Your task to perform on an android device: open sync settings in chrome Image 0: 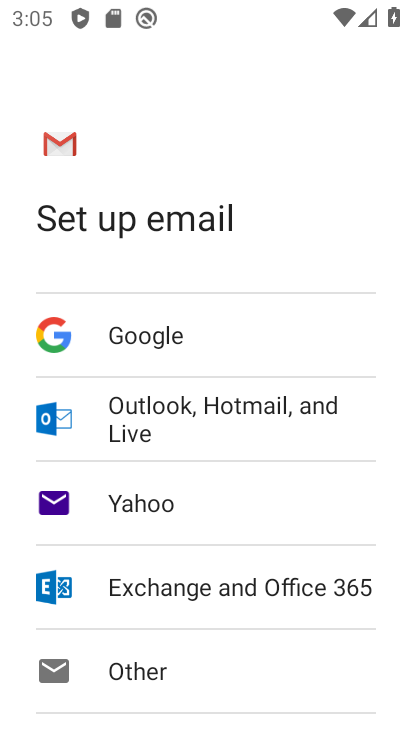
Step 0: press home button
Your task to perform on an android device: open sync settings in chrome Image 1: 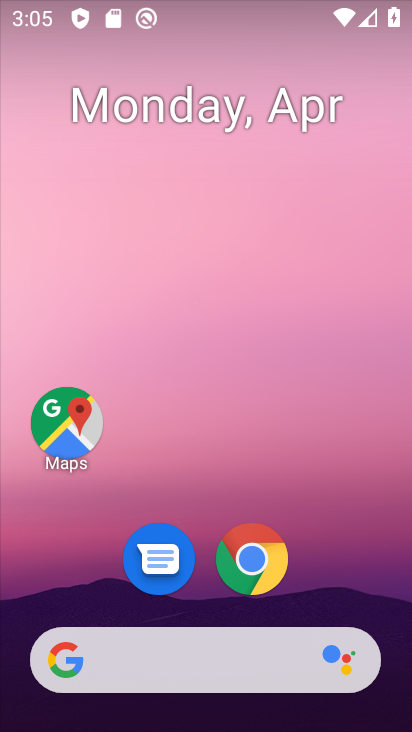
Step 1: drag from (378, 592) to (372, 162)
Your task to perform on an android device: open sync settings in chrome Image 2: 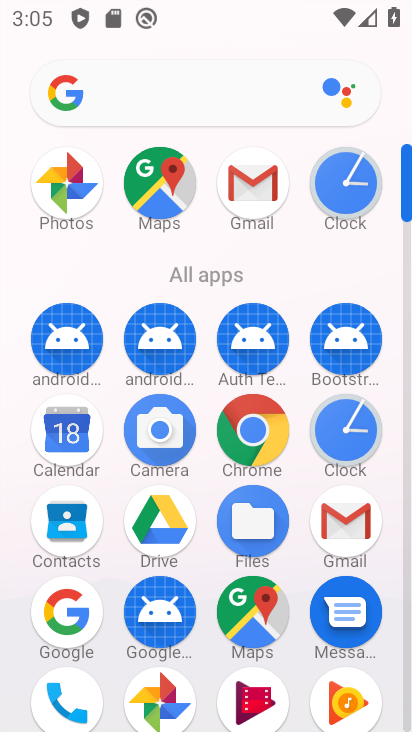
Step 2: click (256, 445)
Your task to perform on an android device: open sync settings in chrome Image 3: 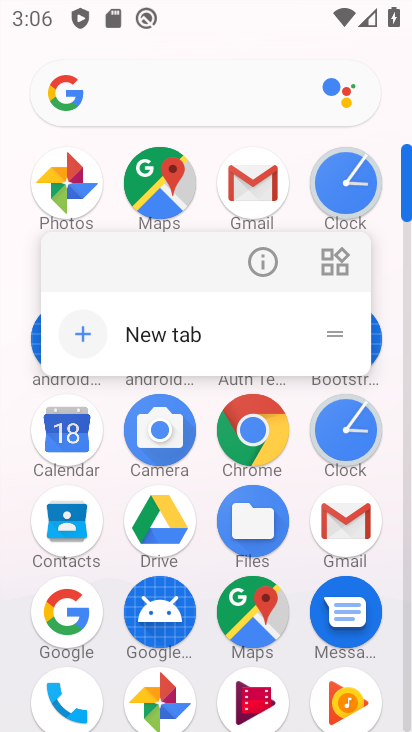
Step 3: click (256, 445)
Your task to perform on an android device: open sync settings in chrome Image 4: 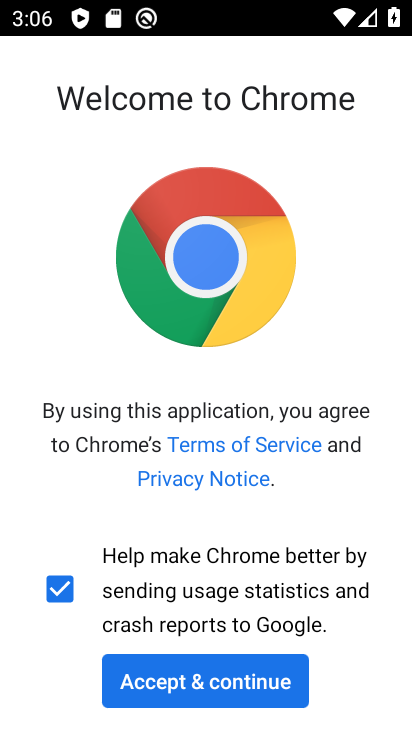
Step 4: click (202, 677)
Your task to perform on an android device: open sync settings in chrome Image 5: 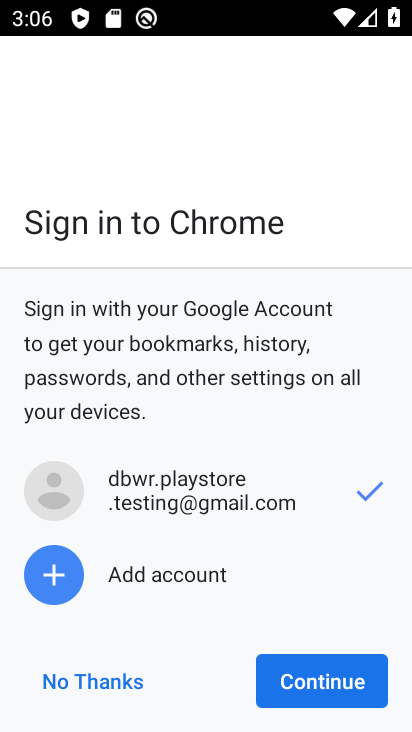
Step 5: click (294, 690)
Your task to perform on an android device: open sync settings in chrome Image 6: 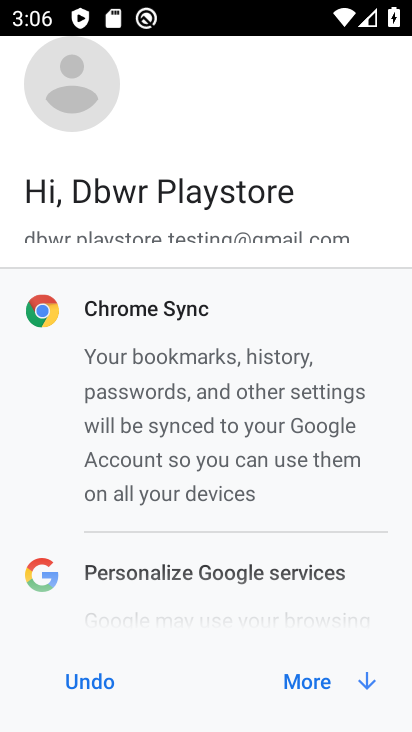
Step 6: click (301, 681)
Your task to perform on an android device: open sync settings in chrome Image 7: 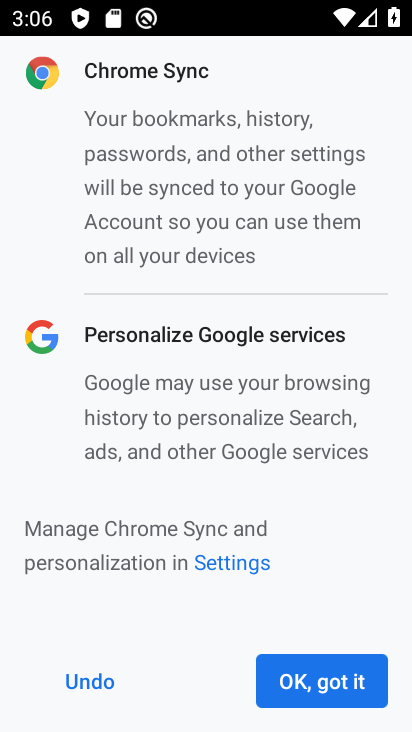
Step 7: click (301, 681)
Your task to perform on an android device: open sync settings in chrome Image 8: 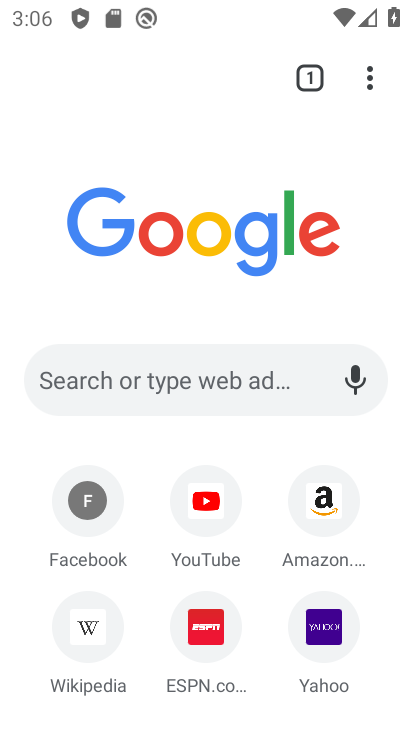
Step 8: click (371, 87)
Your task to perform on an android device: open sync settings in chrome Image 9: 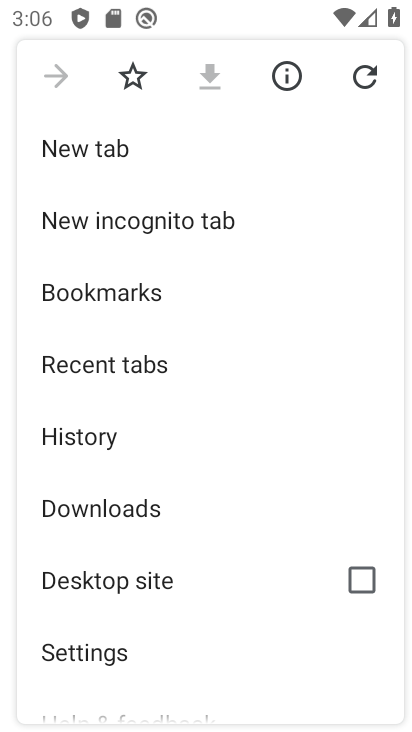
Step 9: drag from (198, 576) to (195, 356)
Your task to perform on an android device: open sync settings in chrome Image 10: 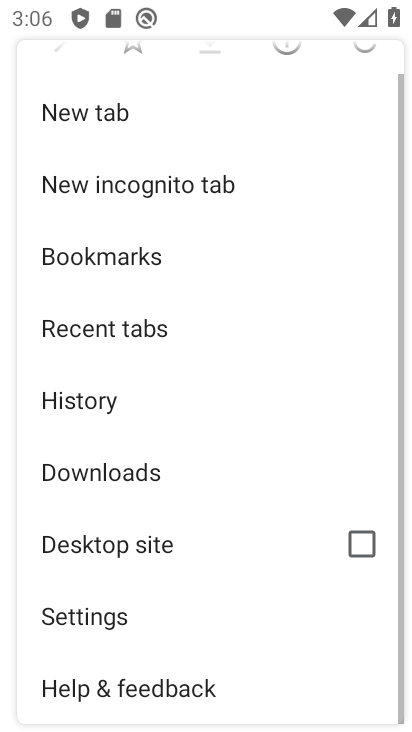
Step 10: click (93, 621)
Your task to perform on an android device: open sync settings in chrome Image 11: 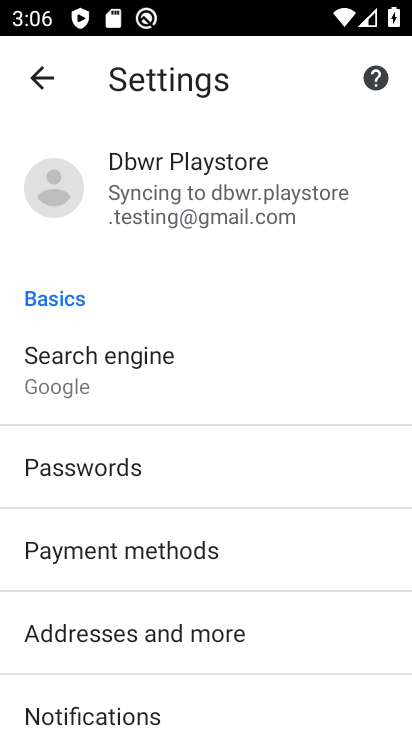
Step 11: drag from (303, 619) to (283, 341)
Your task to perform on an android device: open sync settings in chrome Image 12: 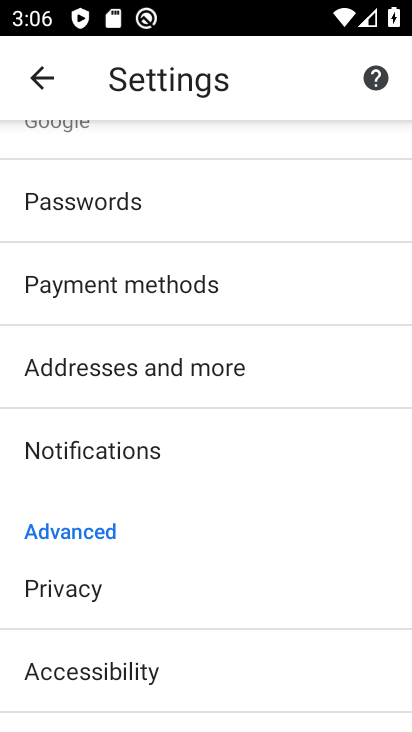
Step 12: drag from (206, 677) to (272, 335)
Your task to perform on an android device: open sync settings in chrome Image 13: 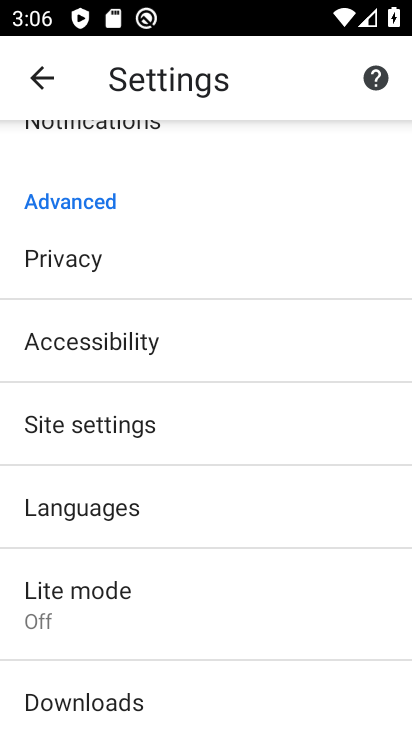
Step 13: click (130, 440)
Your task to perform on an android device: open sync settings in chrome Image 14: 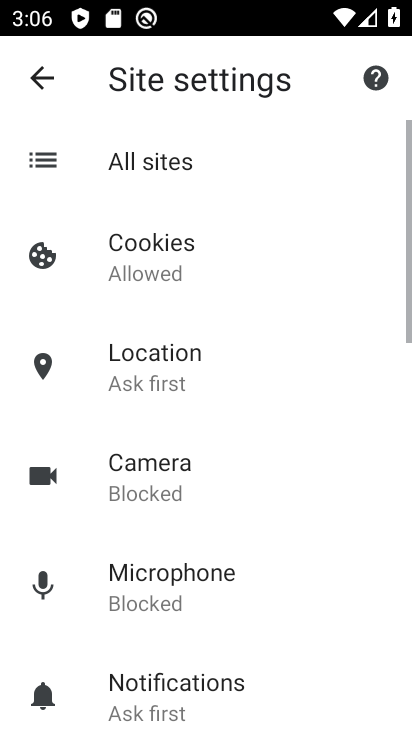
Step 14: drag from (297, 613) to (293, 260)
Your task to perform on an android device: open sync settings in chrome Image 15: 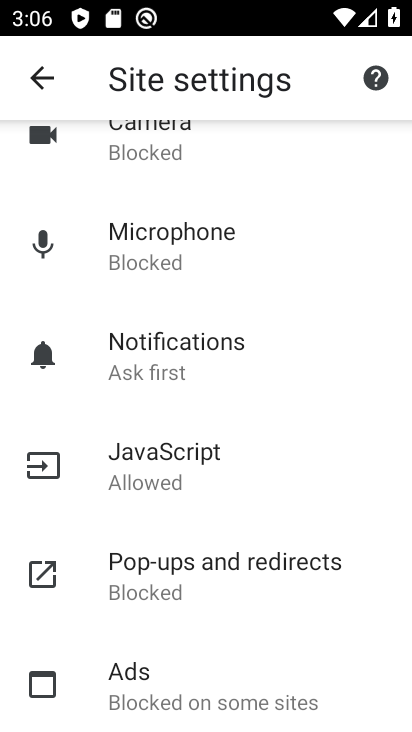
Step 15: drag from (295, 638) to (291, 278)
Your task to perform on an android device: open sync settings in chrome Image 16: 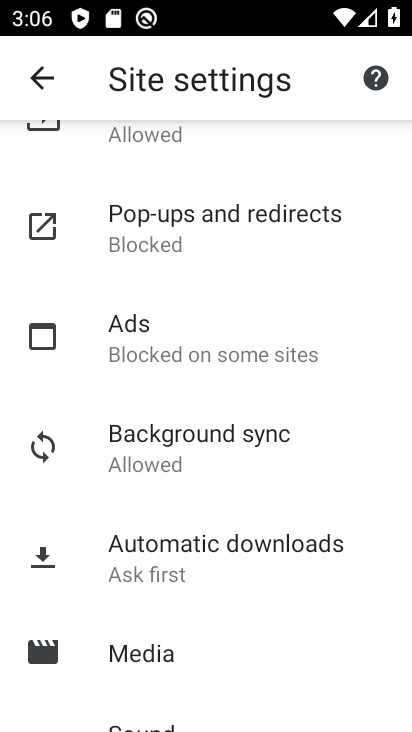
Step 16: click (225, 435)
Your task to perform on an android device: open sync settings in chrome Image 17: 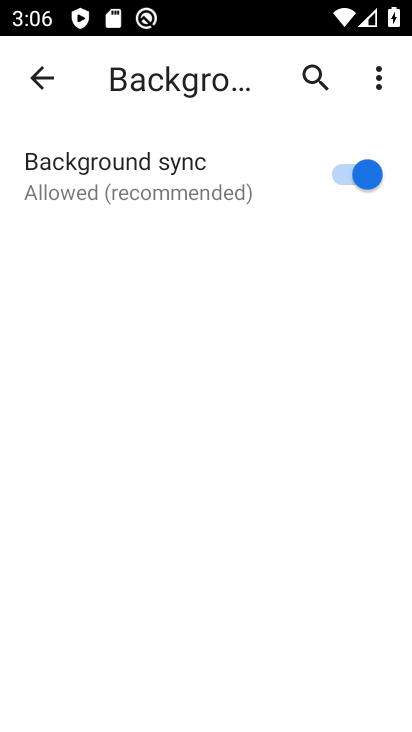
Step 17: task complete